Your task to perform on an android device: turn smart compose on in the gmail app Image 0: 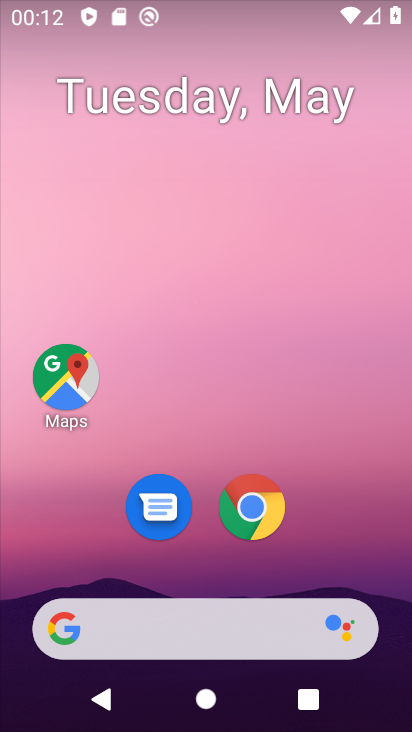
Step 0: drag from (205, 598) to (254, 213)
Your task to perform on an android device: turn smart compose on in the gmail app Image 1: 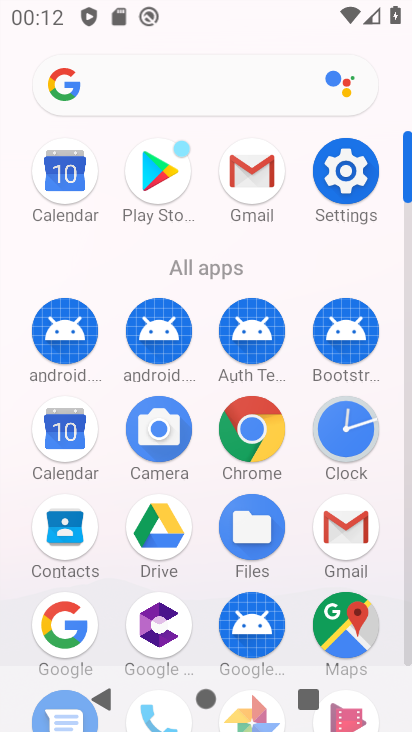
Step 1: click (253, 178)
Your task to perform on an android device: turn smart compose on in the gmail app Image 2: 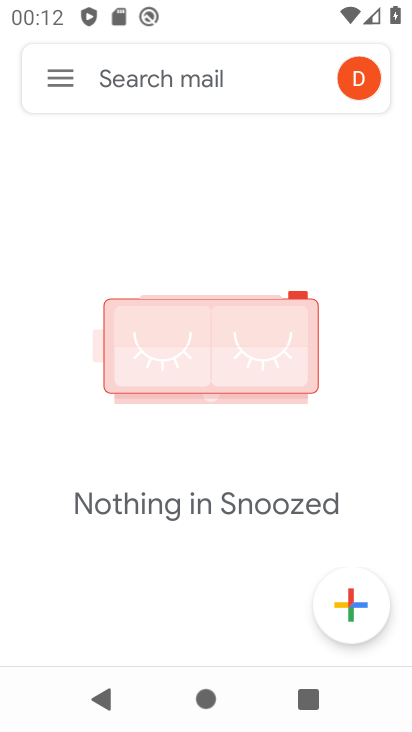
Step 2: click (53, 89)
Your task to perform on an android device: turn smart compose on in the gmail app Image 3: 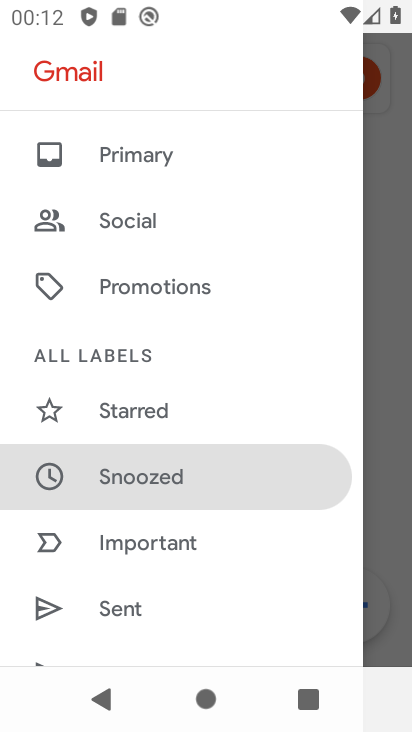
Step 3: drag from (144, 609) to (201, 181)
Your task to perform on an android device: turn smart compose on in the gmail app Image 4: 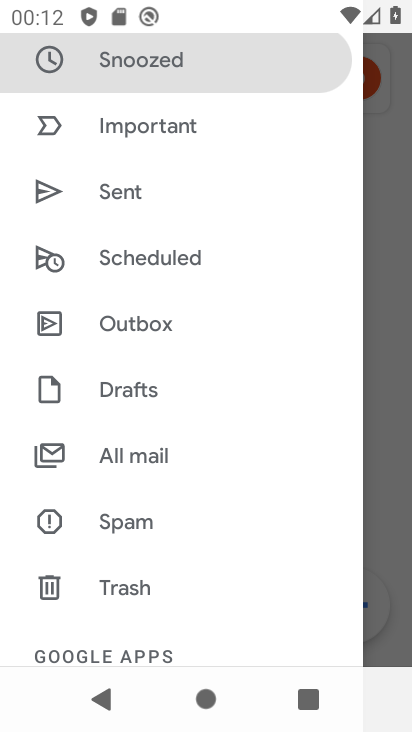
Step 4: drag from (160, 625) to (217, 303)
Your task to perform on an android device: turn smart compose on in the gmail app Image 5: 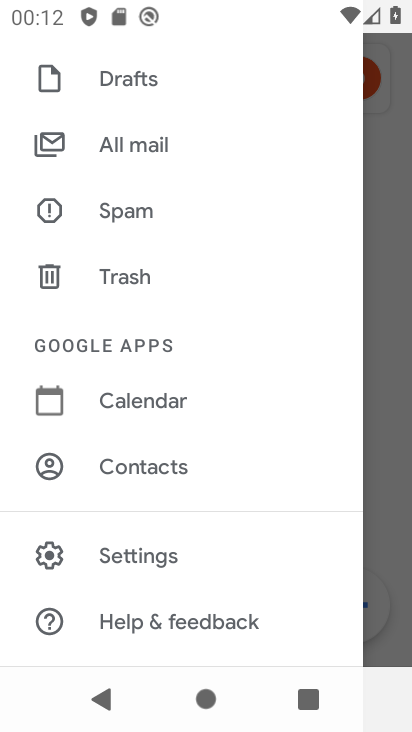
Step 5: drag from (150, 488) to (150, 390)
Your task to perform on an android device: turn smart compose on in the gmail app Image 6: 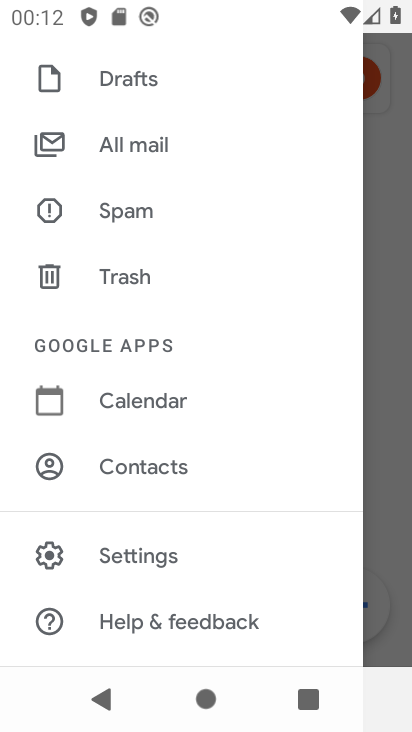
Step 6: click (96, 565)
Your task to perform on an android device: turn smart compose on in the gmail app Image 7: 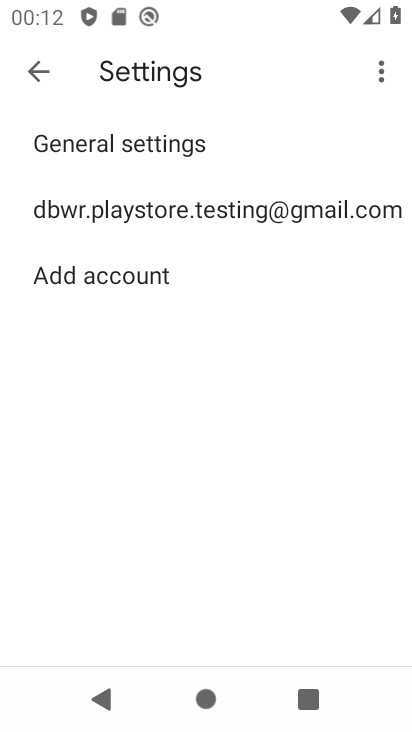
Step 7: click (180, 219)
Your task to perform on an android device: turn smart compose on in the gmail app Image 8: 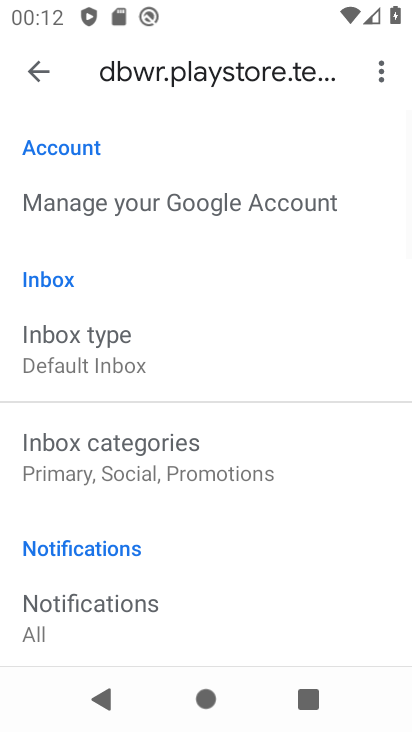
Step 8: task complete